Your task to perform on an android device: toggle show notifications on the lock screen Image 0: 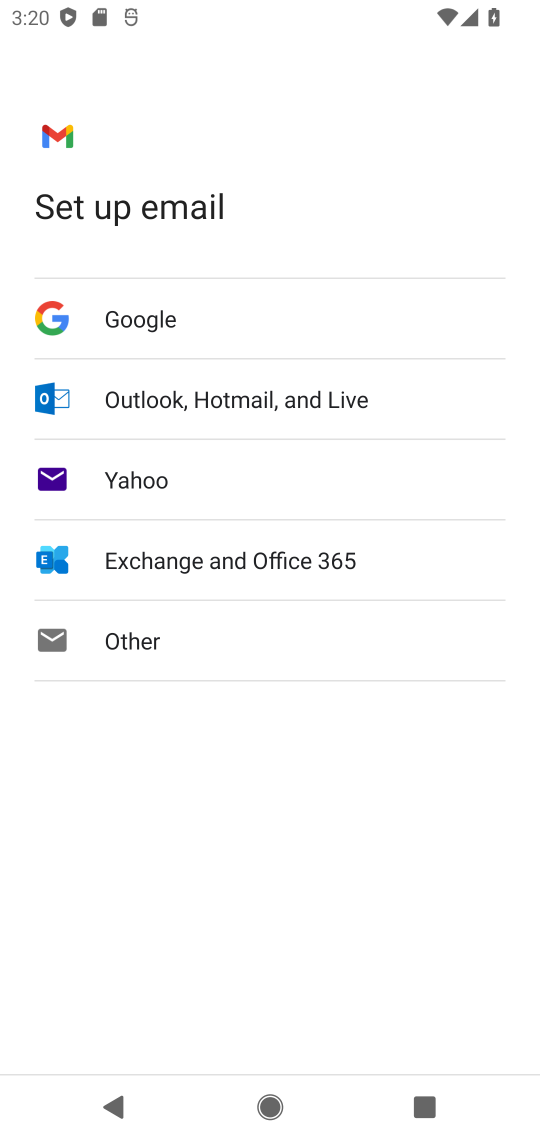
Step 0: press home button
Your task to perform on an android device: toggle show notifications on the lock screen Image 1: 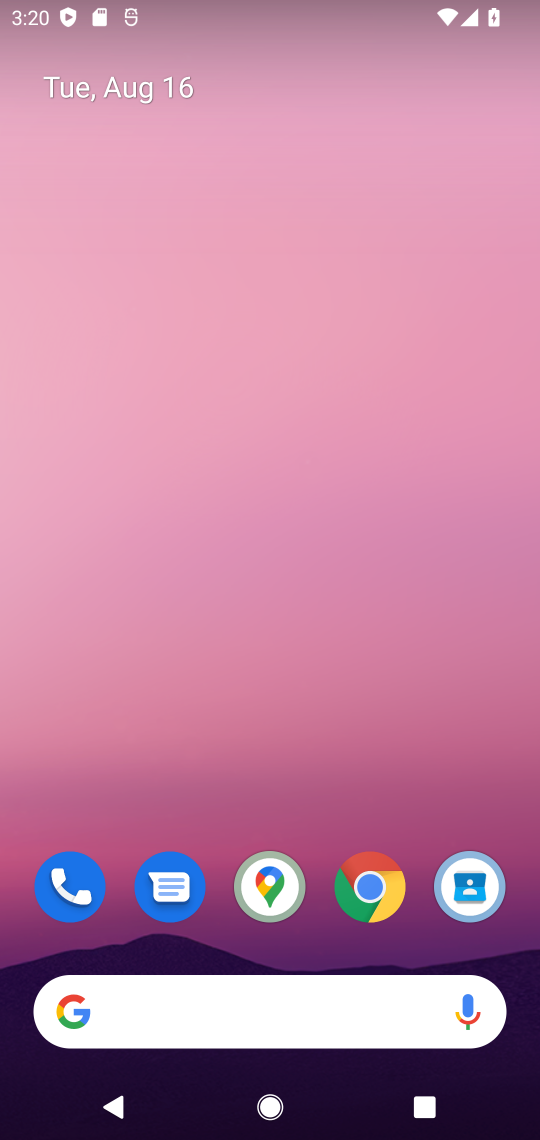
Step 1: drag from (362, 663) to (462, 12)
Your task to perform on an android device: toggle show notifications on the lock screen Image 2: 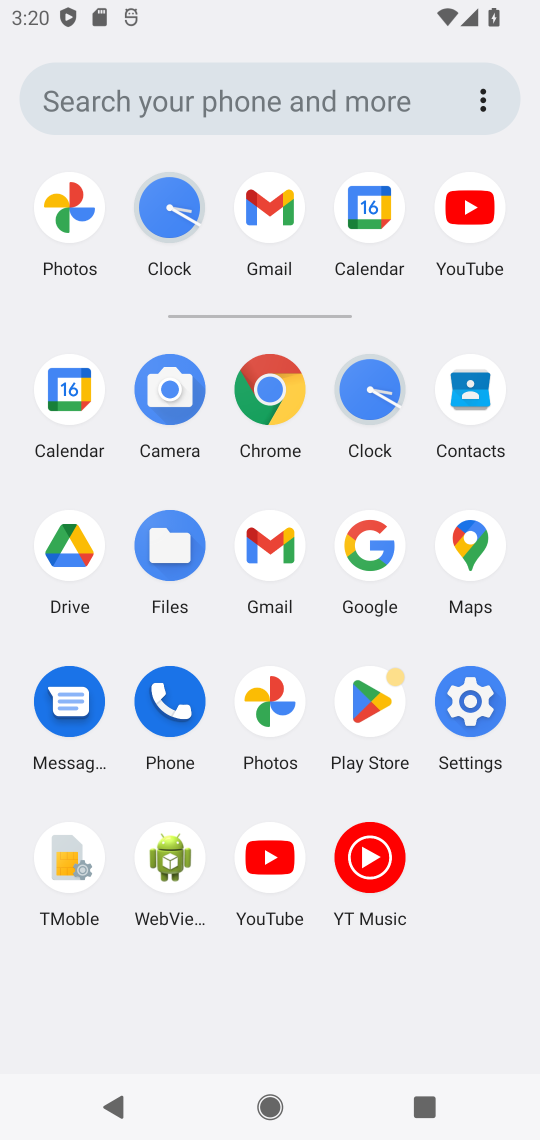
Step 2: click (482, 685)
Your task to perform on an android device: toggle show notifications on the lock screen Image 3: 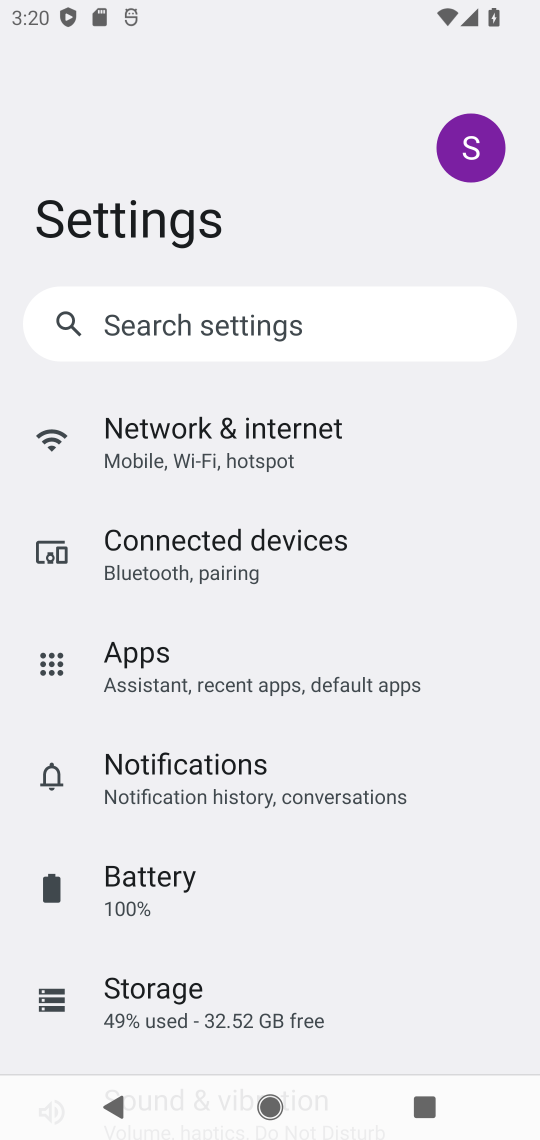
Step 3: click (144, 754)
Your task to perform on an android device: toggle show notifications on the lock screen Image 4: 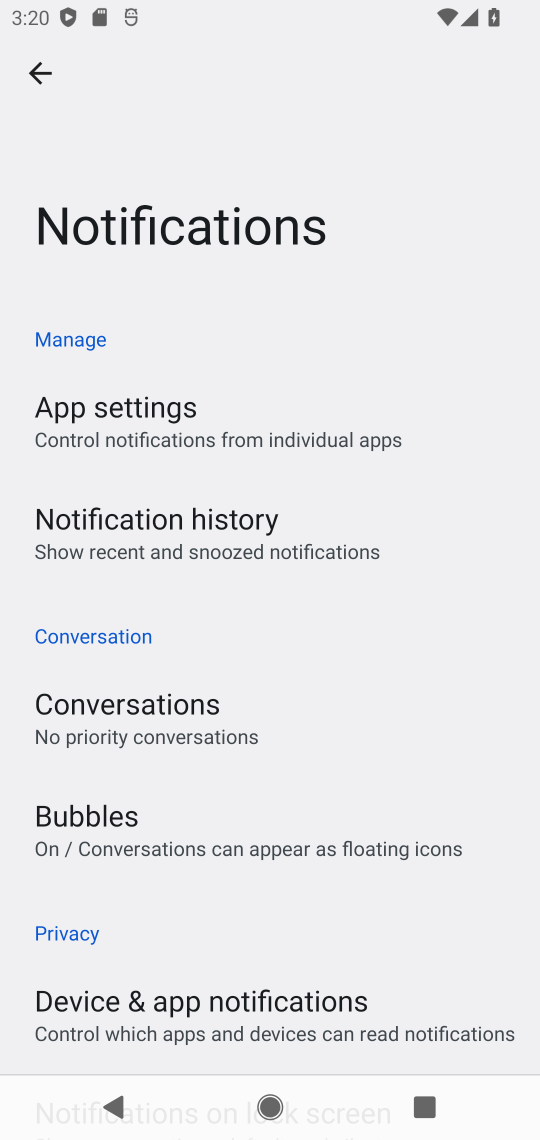
Step 4: drag from (294, 898) to (371, 173)
Your task to perform on an android device: toggle show notifications on the lock screen Image 5: 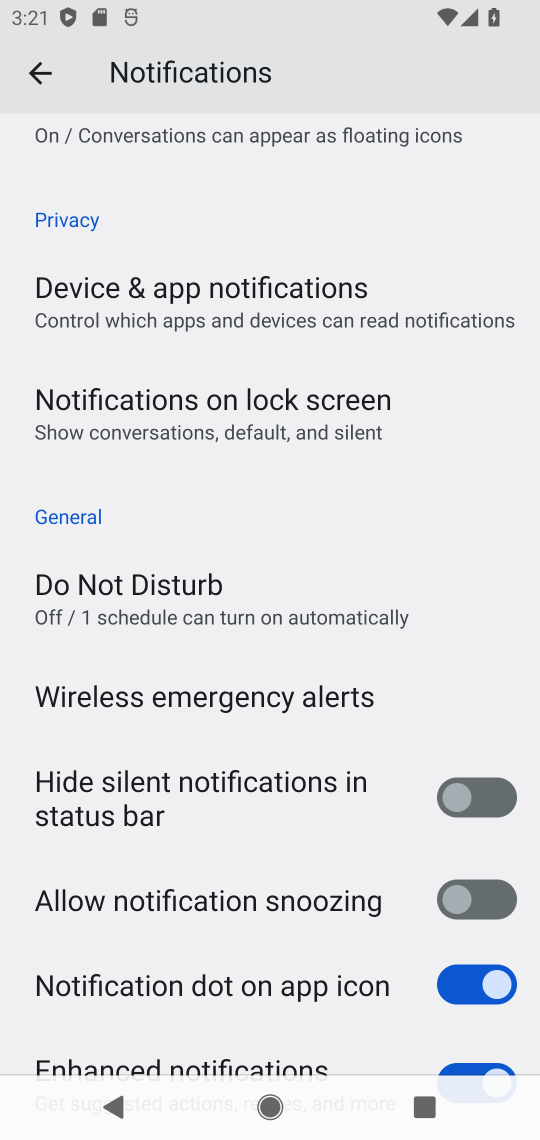
Step 5: click (291, 409)
Your task to perform on an android device: toggle show notifications on the lock screen Image 6: 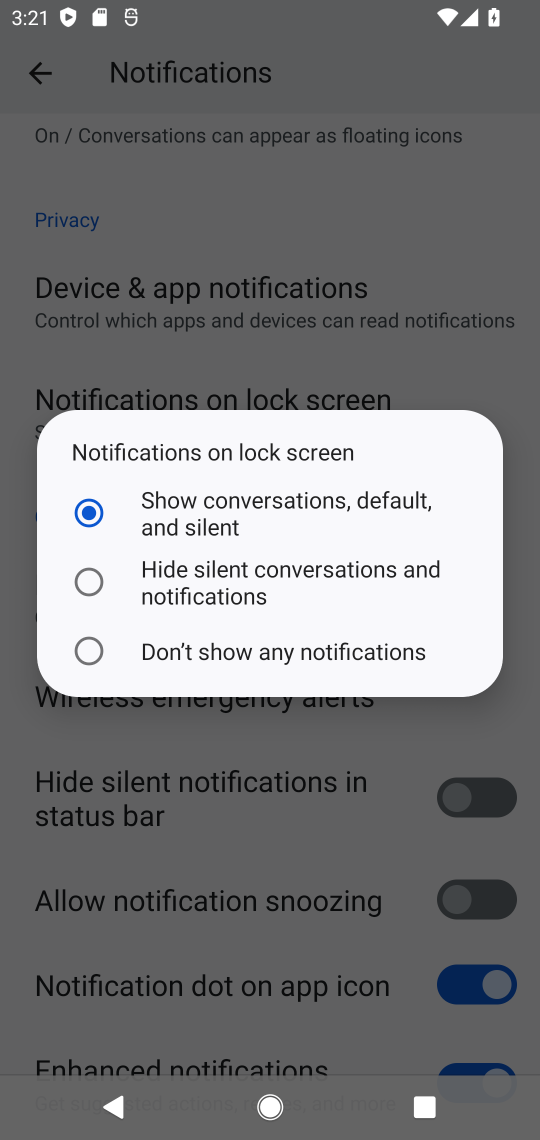
Step 6: click (268, 640)
Your task to perform on an android device: toggle show notifications on the lock screen Image 7: 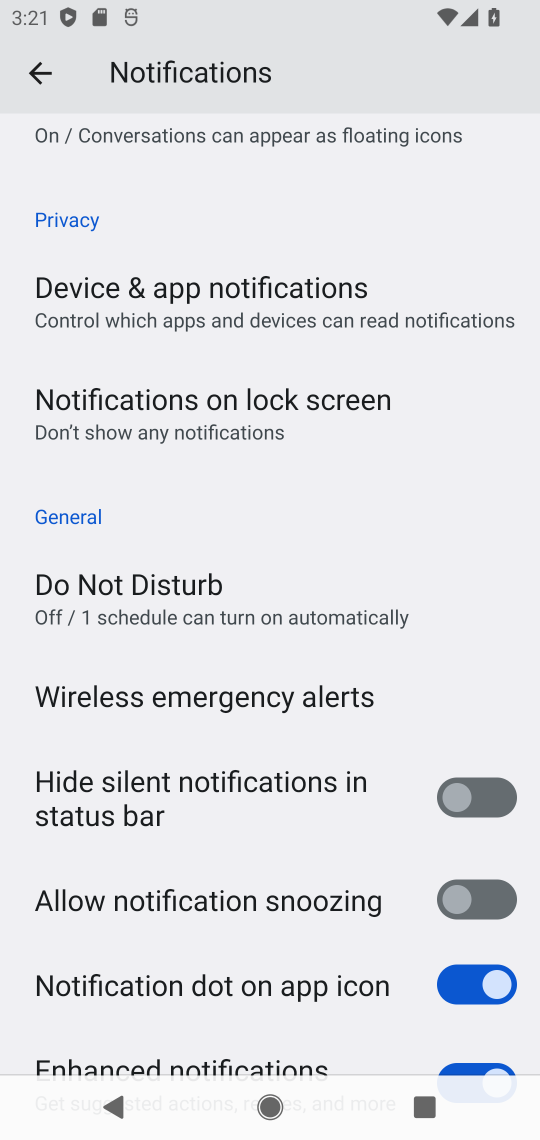
Step 7: task complete